Your task to perform on an android device: choose inbox layout in the gmail app Image 0: 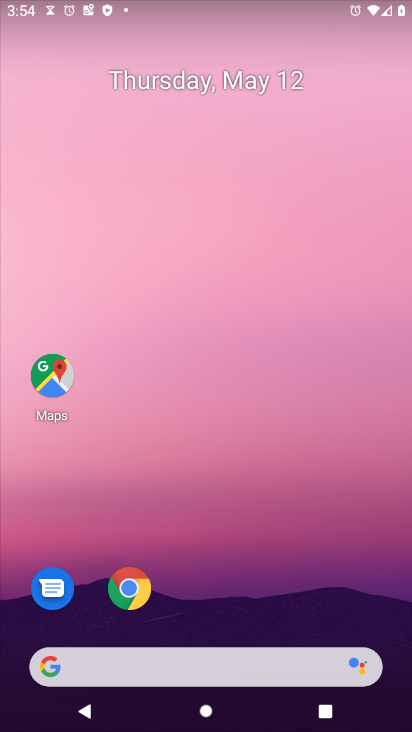
Step 0: drag from (259, 548) to (224, 25)
Your task to perform on an android device: choose inbox layout in the gmail app Image 1: 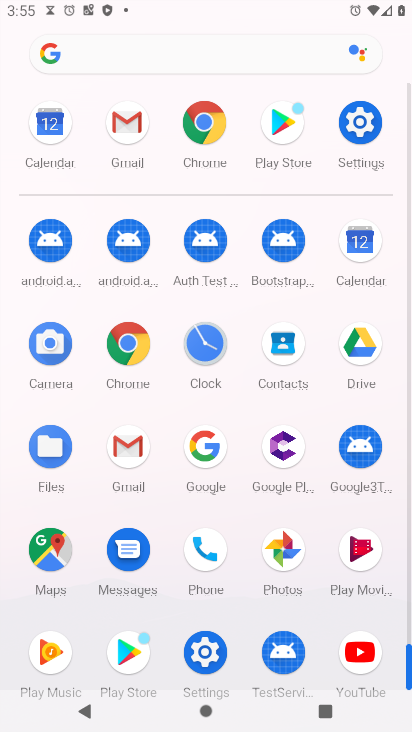
Step 1: drag from (15, 507) to (14, 205)
Your task to perform on an android device: choose inbox layout in the gmail app Image 2: 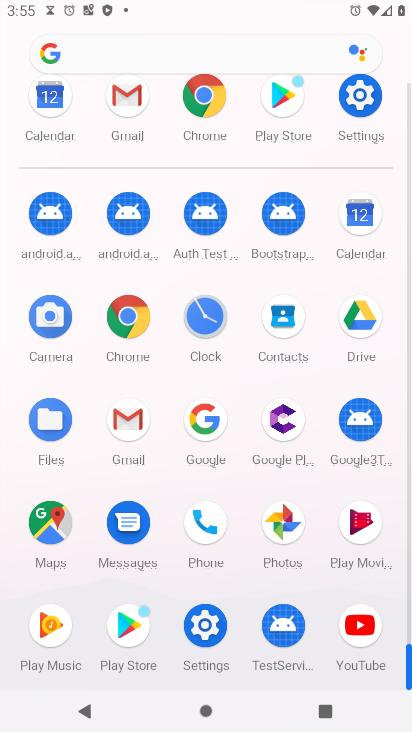
Step 2: click (127, 413)
Your task to perform on an android device: choose inbox layout in the gmail app Image 3: 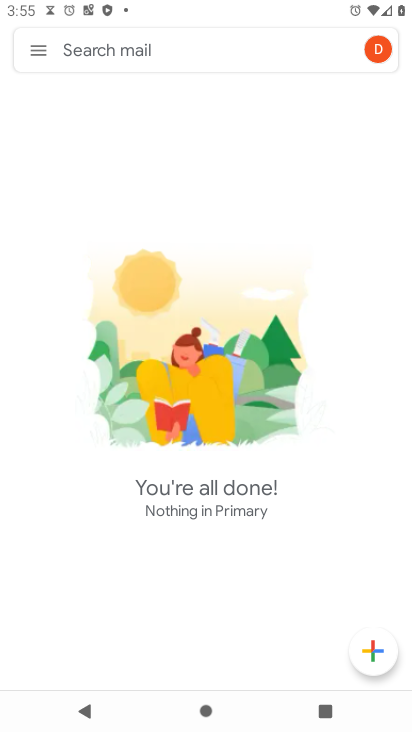
Step 3: click (25, 40)
Your task to perform on an android device: choose inbox layout in the gmail app Image 4: 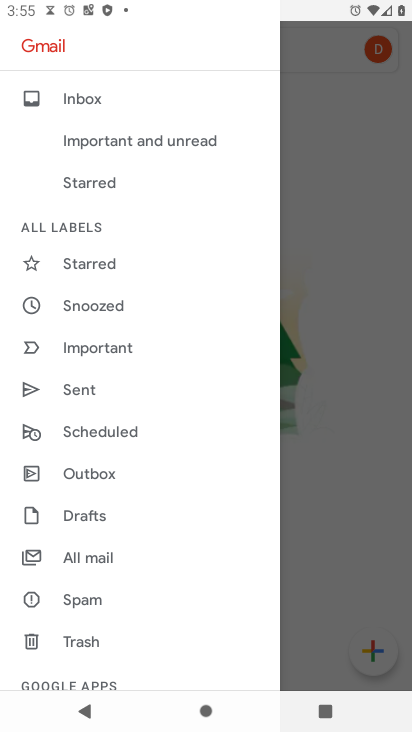
Step 4: drag from (176, 570) to (190, 228)
Your task to perform on an android device: choose inbox layout in the gmail app Image 5: 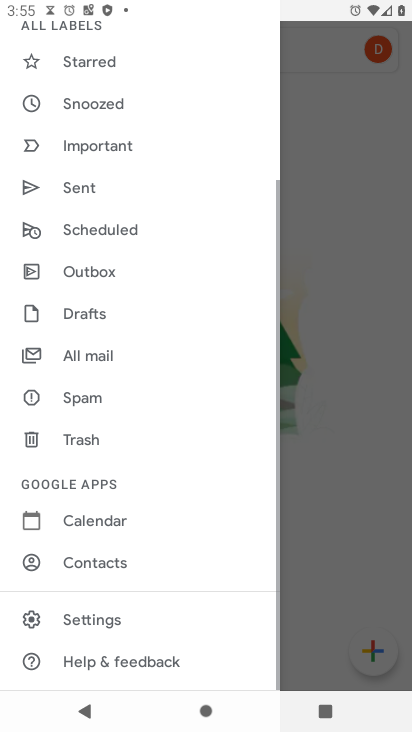
Step 5: click (112, 615)
Your task to perform on an android device: choose inbox layout in the gmail app Image 6: 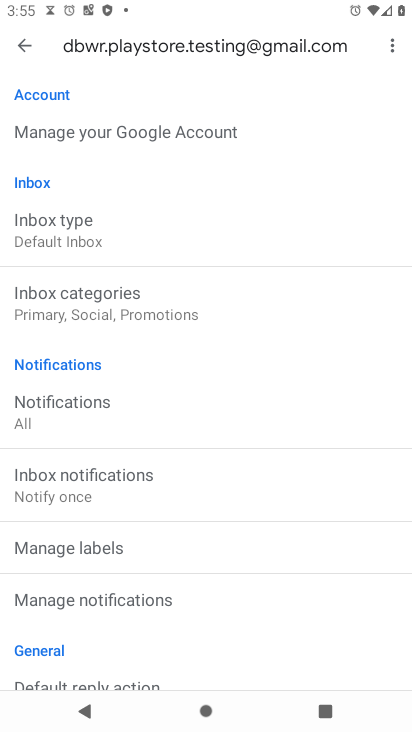
Step 6: click (126, 227)
Your task to perform on an android device: choose inbox layout in the gmail app Image 7: 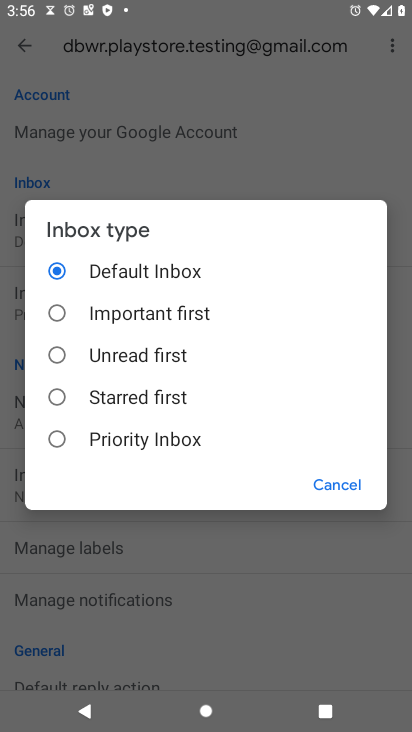
Step 7: click (143, 297)
Your task to perform on an android device: choose inbox layout in the gmail app Image 8: 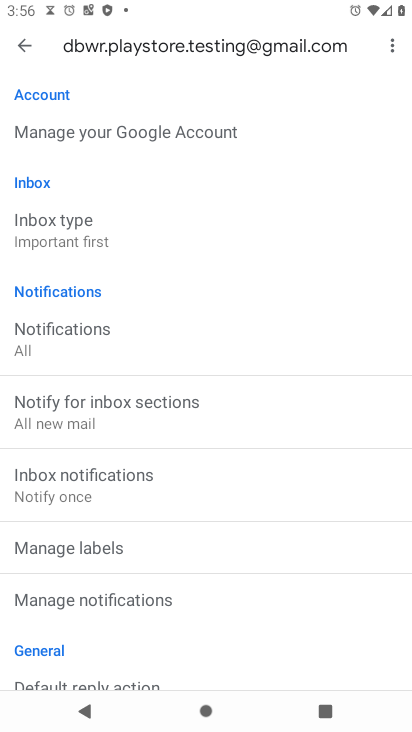
Step 8: task complete